Your task to perform on an android device: Search for a home improvement project you can do. Image 0: 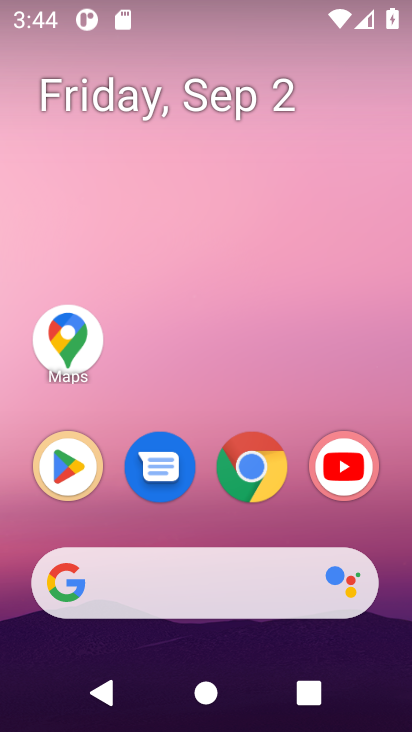
Step 0: drag from (219, 568) to (206, 157)
Your task to perform on an android device: Search for a home improvement project you can do. Image 1: 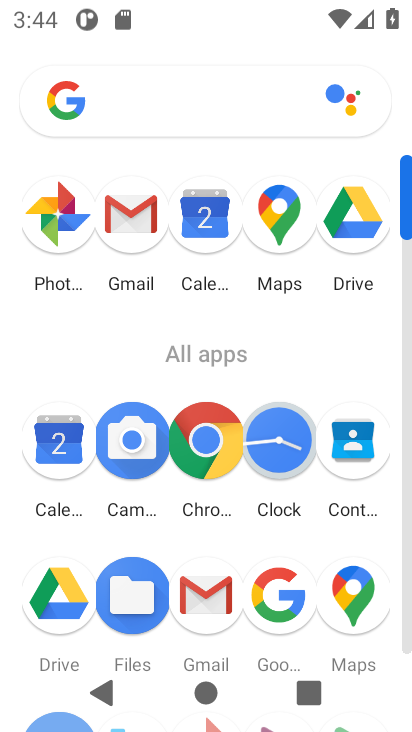
Step 1: click (278, 604)
Your task to perform on an android device: Search for a home improvement project you can do. Image 2: 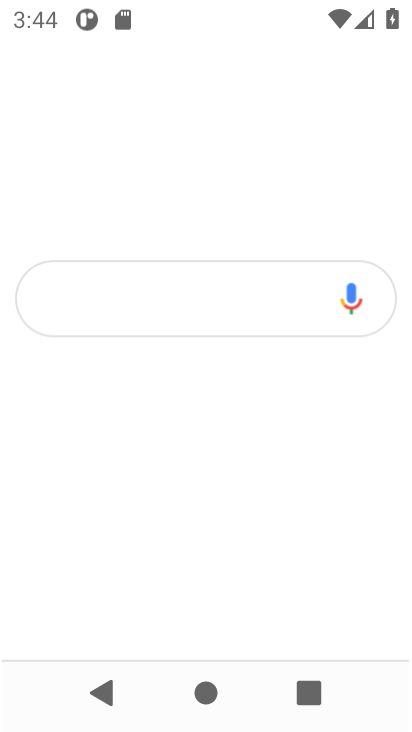
Step 2: click (280, 581)
Your task to perform on an android device: Search for a home improvement project you can do. Image 3: 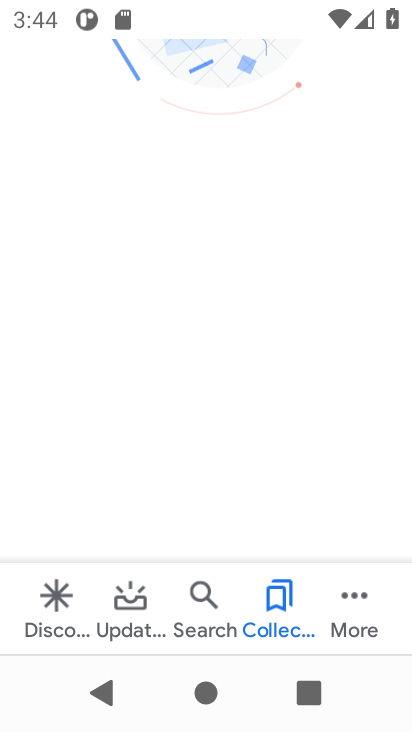
Step 3: press back button
Your task to perform on an android device: Search for a home improvement project you can do. Image 4: 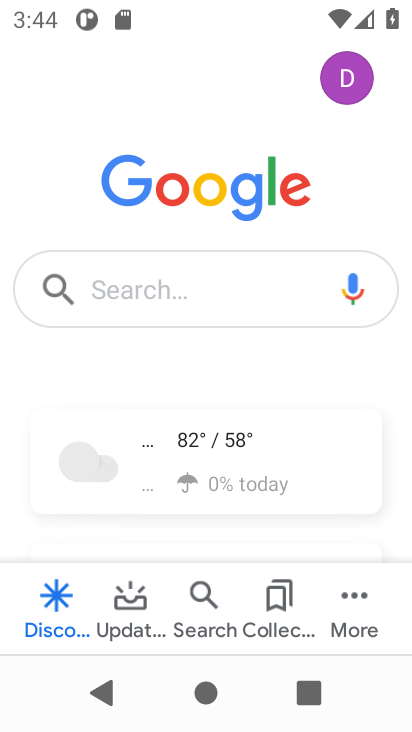
Step 4: click (193, 291)
Your task to perform on an android device: Search for a home improvement project you can do. Image 5: 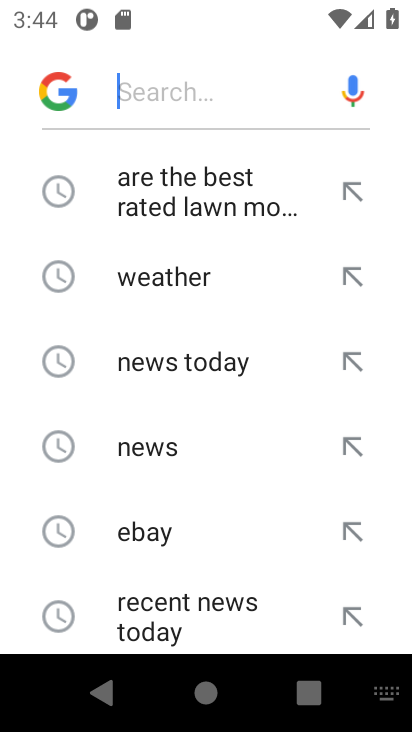
Step 5: type "a home improvement project you can do "
Your task to perform on an android device: Search for a home improvement project you can do. Image 6: 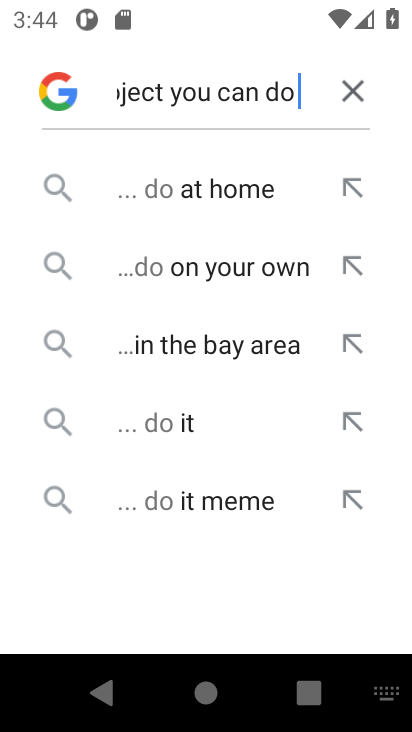
Step 6: click (181, 208)
Your task to perform on an android device: Search for a home improvement project you can do. Image 7: 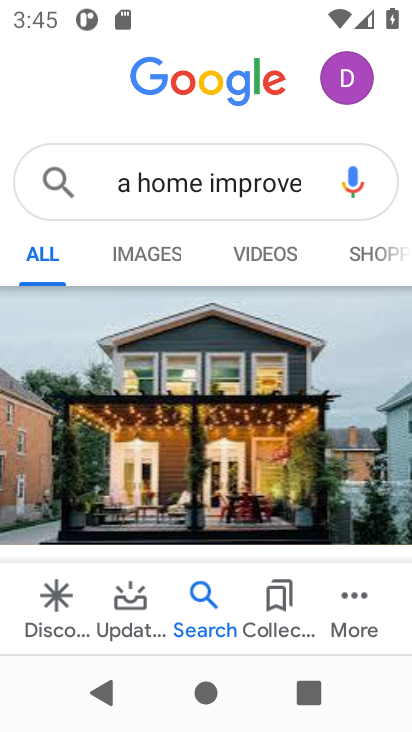
Step 7: click (300, 185)
Your task to perform on an android device: Search for a home improvement project you can do. Image 8: 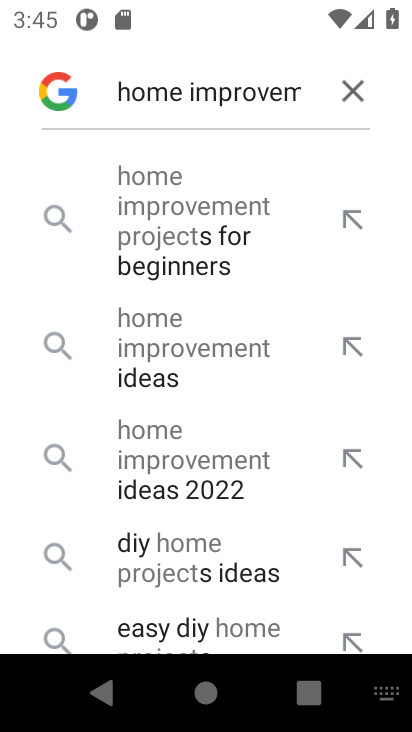
Step 8: click (219, 362)
Your task to perform on an android device: Search for a home improvement project you can do. Image 9: 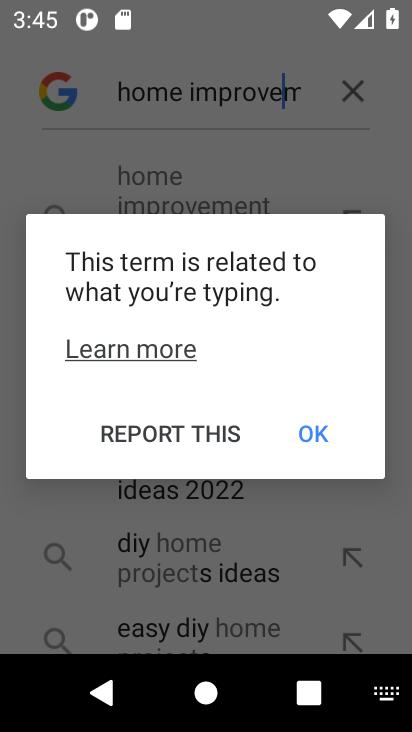
Step 9: click (316, 432)
Your task to perform on an android device: Search for a home improvement project you can do. Image 10: 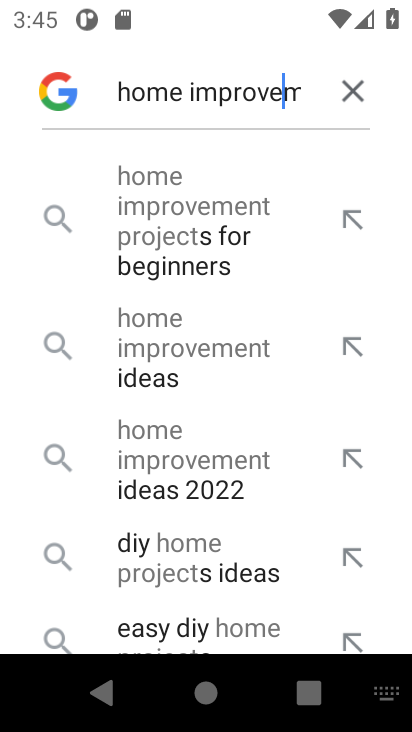
Step 10: click (198, 254)
Your task to perform on an android device: Search for a home improvement project you can do. Image 11: 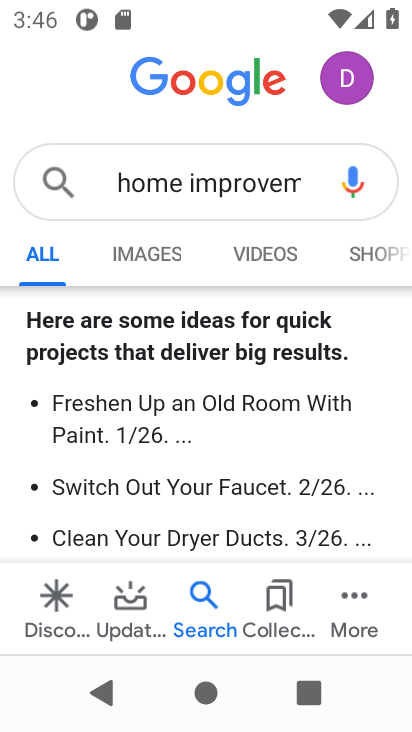
Step 11: task complete